Your task to perform on an android device: set default search engine in the chrome app Image 0: 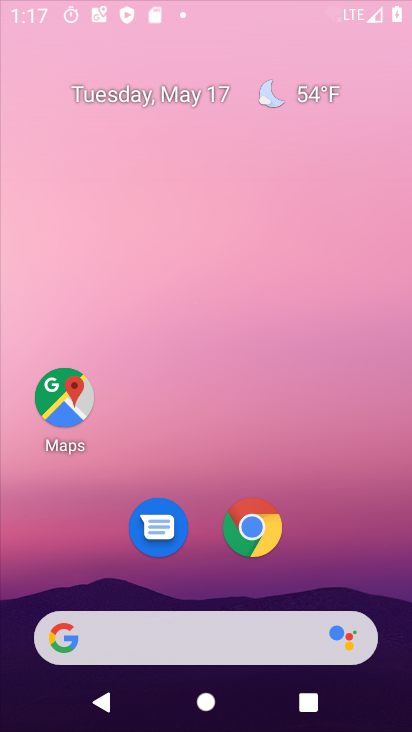
Step 0: press home button
Your task to perform on an android device: set default search engine in the chrome app Image 1: 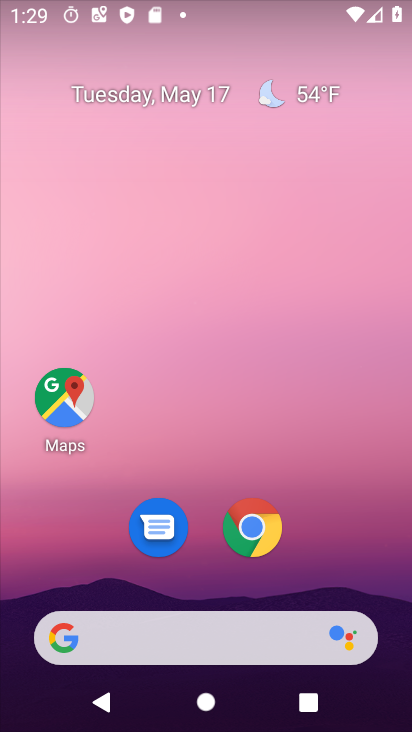
Step 1: drag from (286, 683) to (209, 299)
Your task to perform on an android device: set default search engine in the chrome app Image 2: 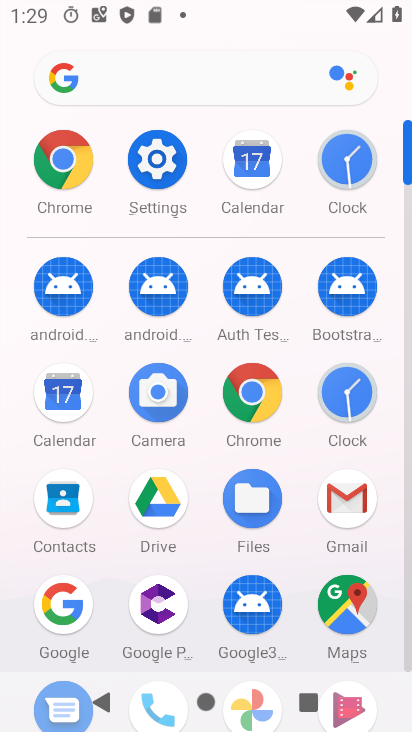
Step 2: click (227, 404)
Your task to perform on an android device: set default search engine in the chrome app Image 3: 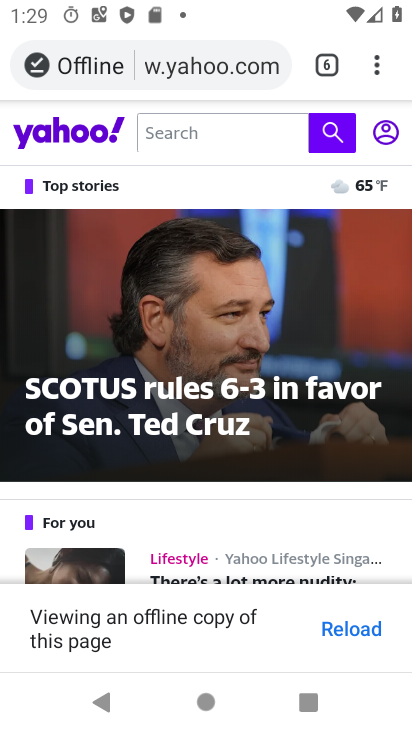
Step 3: click (378, 77)
Your task to perform on an android device: set default search engine in the chrome app Image 4: 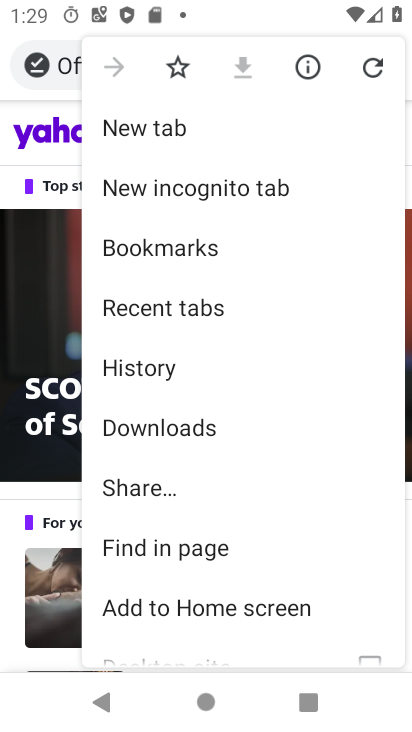
Step 4: drag from (188, 503) to (116, 343)
Your task to perform on an android device: set default search engine in the chrome app Image 5: 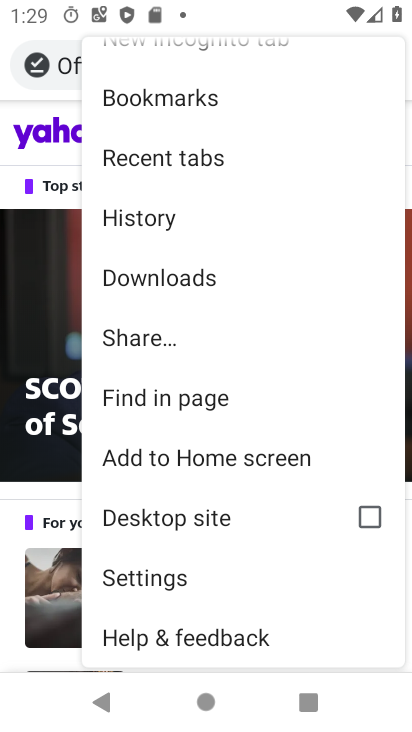
Step 5: click (131, 579)
Your task to perform on an android device: set default search engine in the chrome app Image 6: 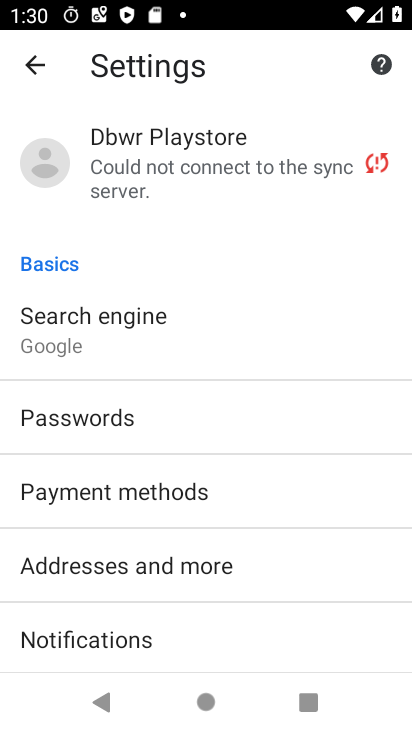
Step 6: click (108, 313)
Your task to perform on an android device: set default search engine in the chrome app Image 7: 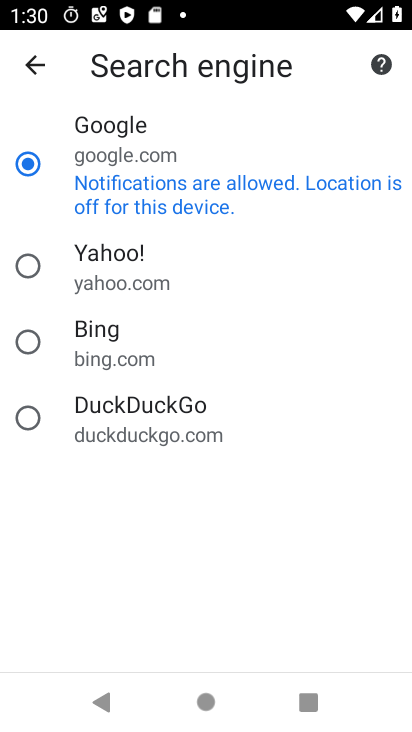
Step 7: task complete